Your task to perform on an android device: find which apps use the phone's location Image 0: 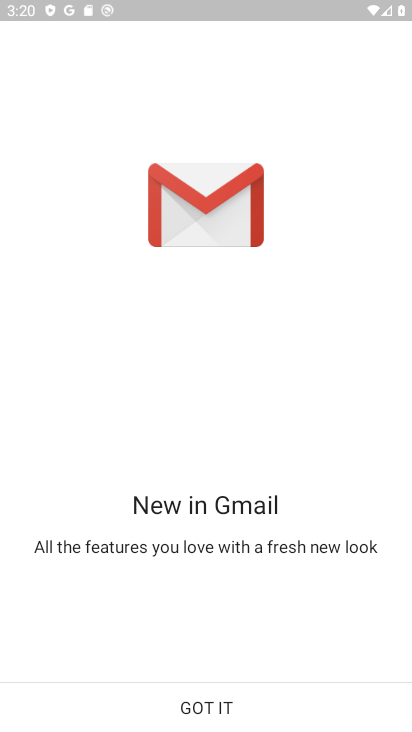
Step 0: press back button
Your task to perform on an android device: find which apps use the phone's location Image 1: 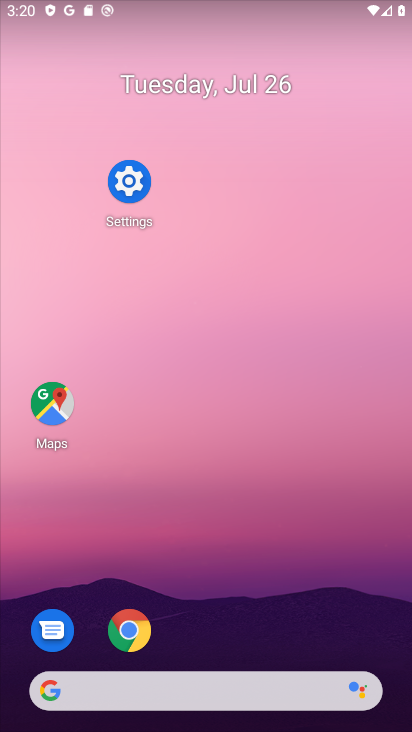
Step 1: click (127, 179)
Your task to perform on an android device: find which apps use the phone's location Image 2: 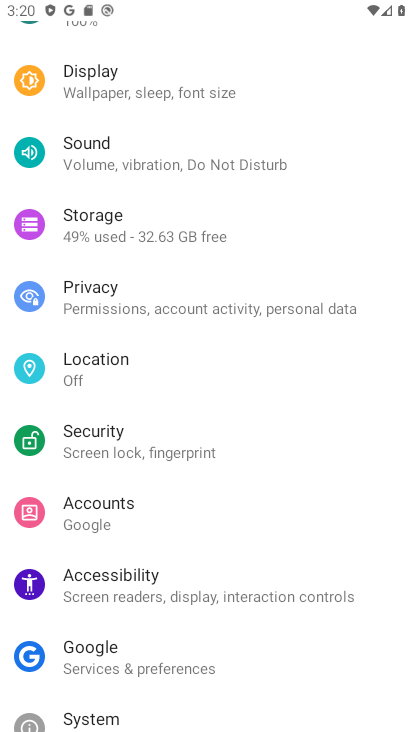
Step 2: click (167, 380)
Your task to perform on an android device: find which apps use the phone's location Image 3: 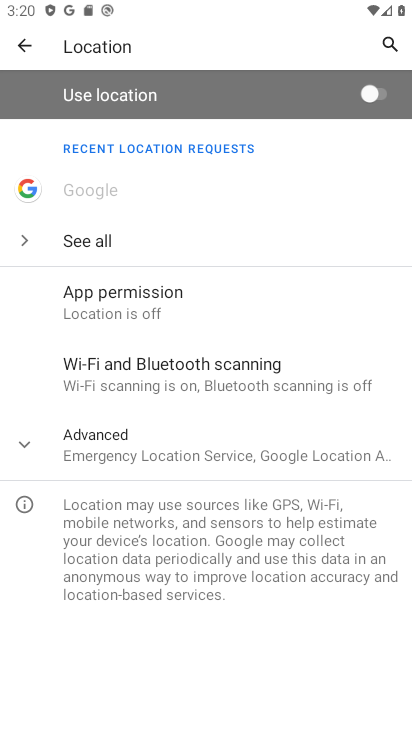
Step 3: task complete